Your task to perform on an android device: find which apps use the phone's location Image 0: 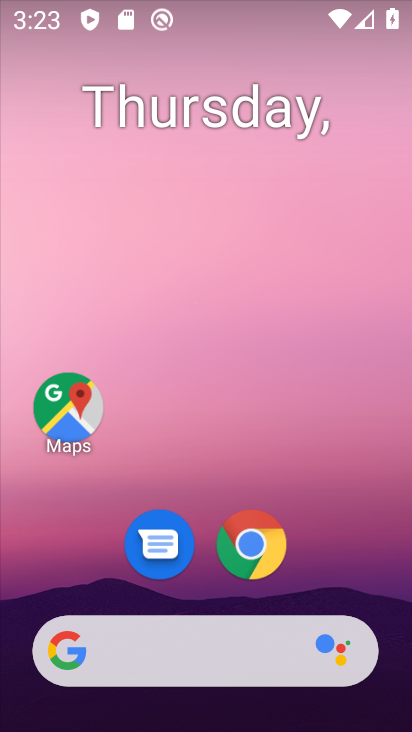
Step 0: drag from (326, 587) to (261, 0)
Your task to perform on an android device: find which apps use the phone's location Image 1: 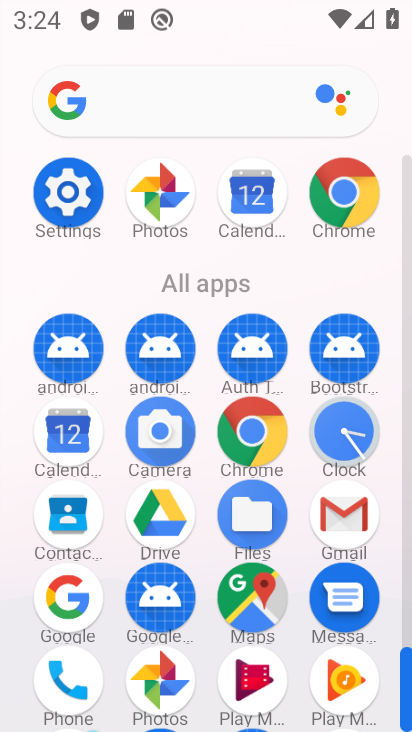
Step 1: click (91, 195)
Your task to perform on an android device: find which apps use the phone's location Image 2: 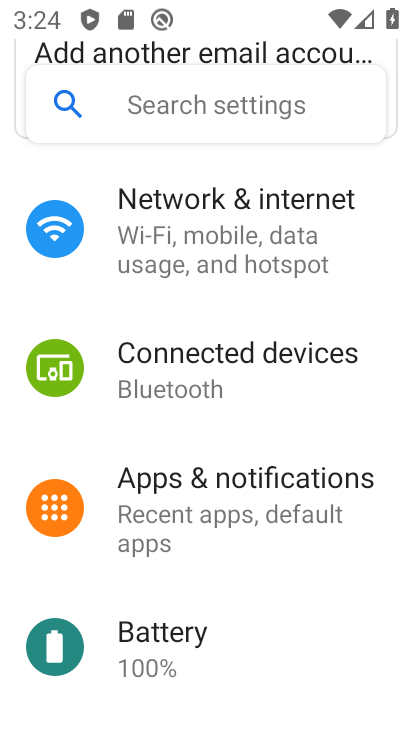
Step 2: drag from (205, 536) to (212, 192)
Your task to perform on an android device: find which apps use the phone's location Image 3: 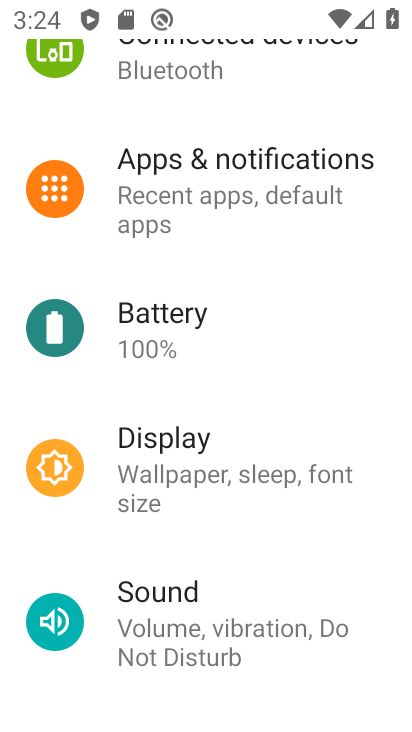
Step 3: drag from (202, 294) to (278, 102)
Your task to perform on an android device: find which apps use the phone's location Image 4: 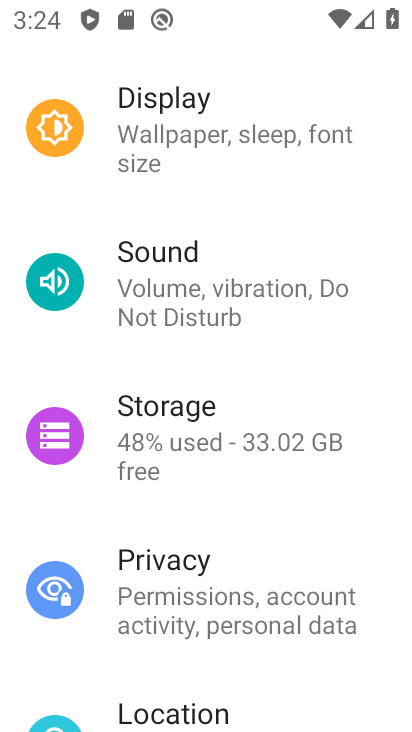
Step 4: click (225, 700)
Your task to perform on an android device: find which apps use the phone's location Image 5: 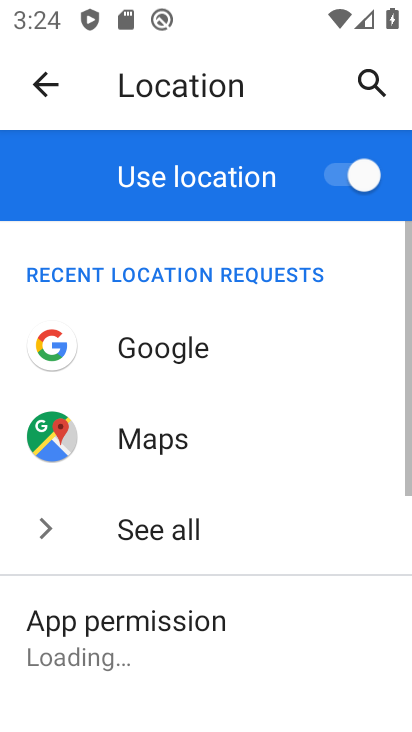
Step 5: drag from (210, 562) to (210, 162)
Your task to perform on an android device: find which apps use the phone's location Image 6: 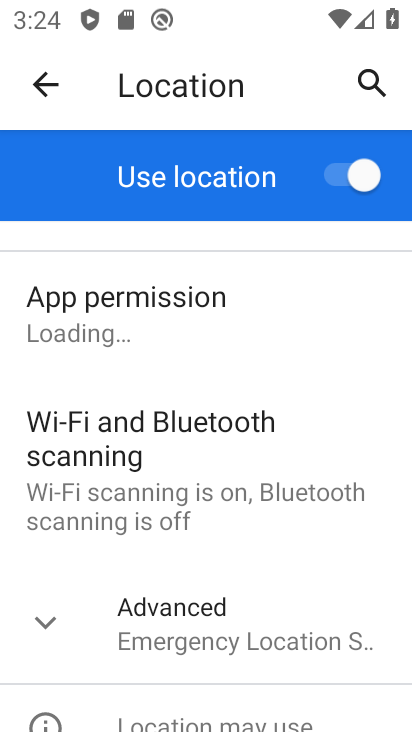
Step 6: drag from (193, 621) to (192, 332)
Your task to perform on an android device: find which apps use the phone's location Image 7: 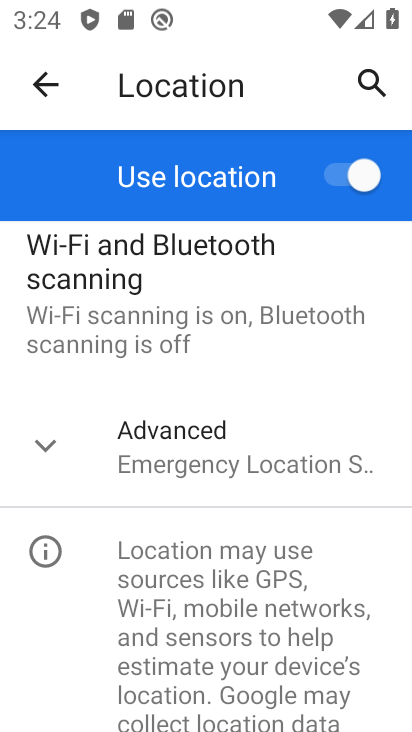
Step 7: click (170, 443)
Your task to perform on an android device: find which apps use the phone's location Image 8: 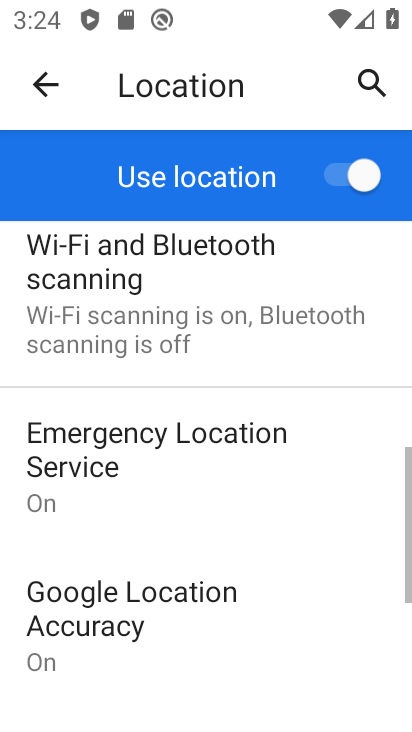
Step 8: drag from (172, 441) to (177, 300)
Your task to perform on an android device: find which apps use the phone's location Image 9: 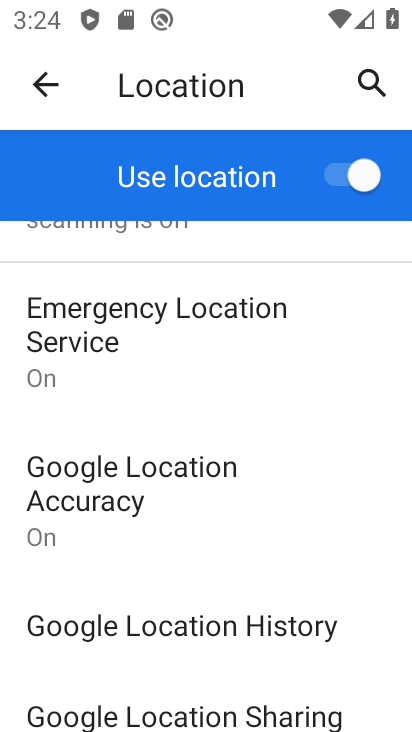
Step 9: drag from (171, 331) to (210, 525)
Your task to perform on an android device: find which apps use the phone's location Image 10: 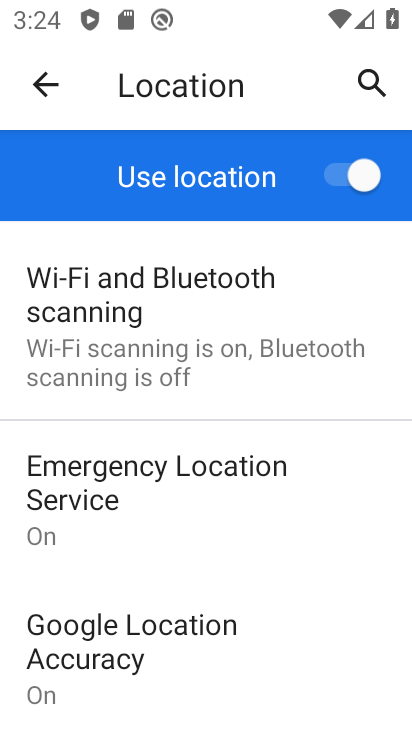
Step 10: drag from (199, 330) to (245, 517)
Your task to perform on an android device: find which apps use the phone's location Image 11: 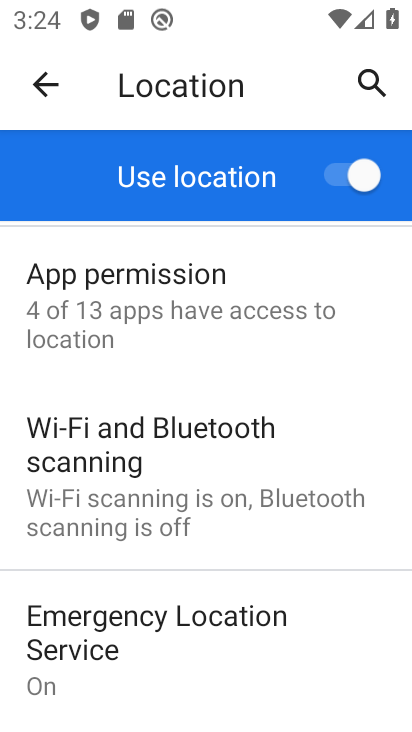
Step 11: click (180, 304)
Your task to perform on an android device: find which apps use the phone's location Image 12: 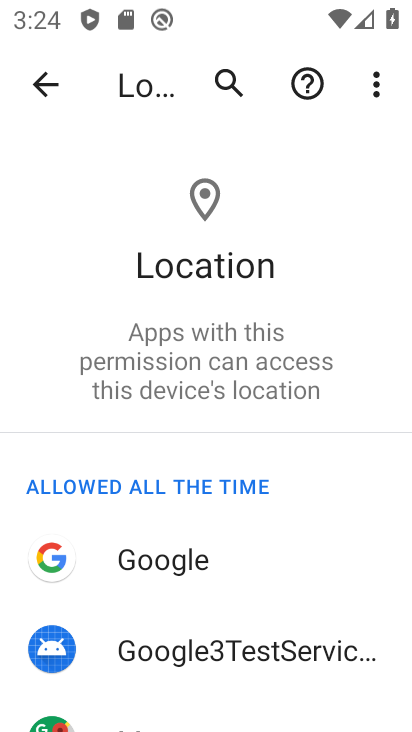
Step 12: task complete